Your task to perform on an android device: Go to Reddit.com Image 0: 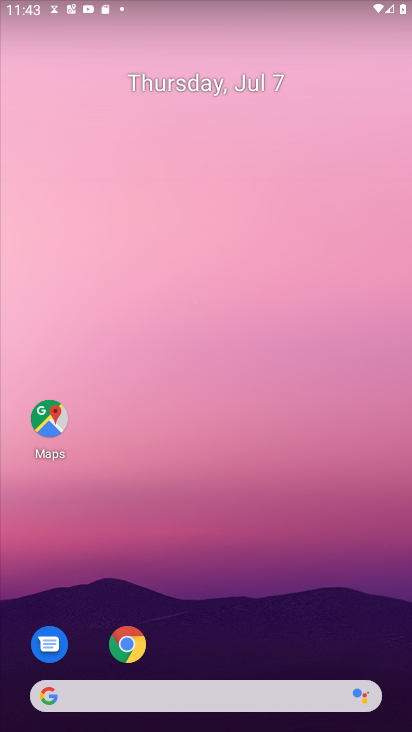
Step 0: click (195, 698)
Your task to perform on an android device: Go to Reddit.com Image 1: 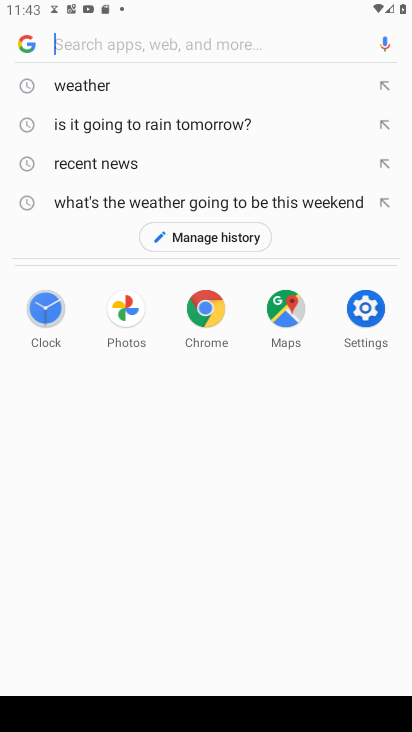
Step 1: type "Reddit.com"
Your task to perform on an android device: Go to Reddit.com Image 2: 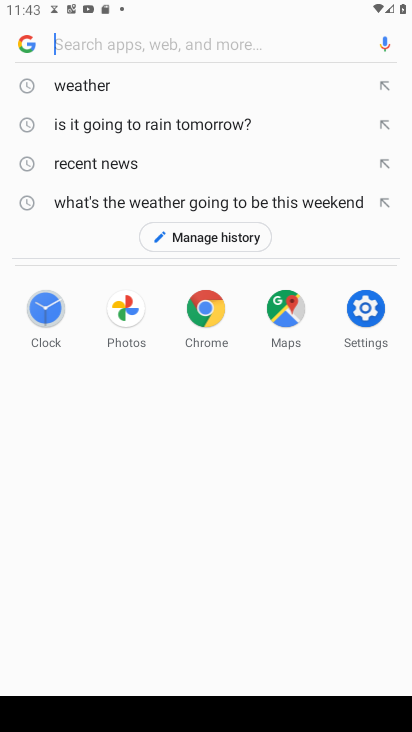
Step 2: click (86, 40)
Your task to perform on an android device: Go to Reddit.com Image 3: 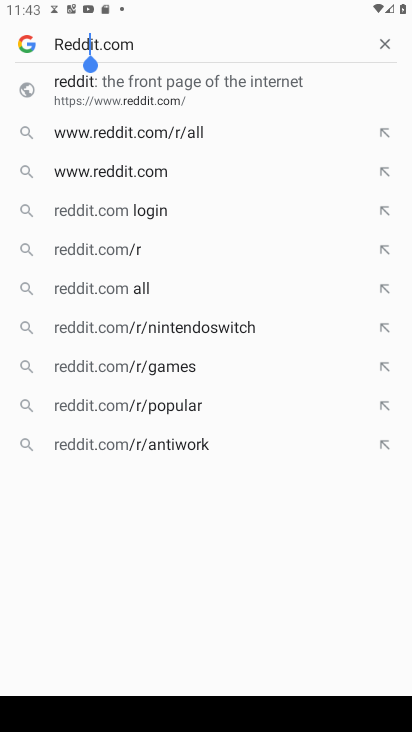
Step 3: press home button
Your task to perform on an android device: Go to Reddit.com Image 4: 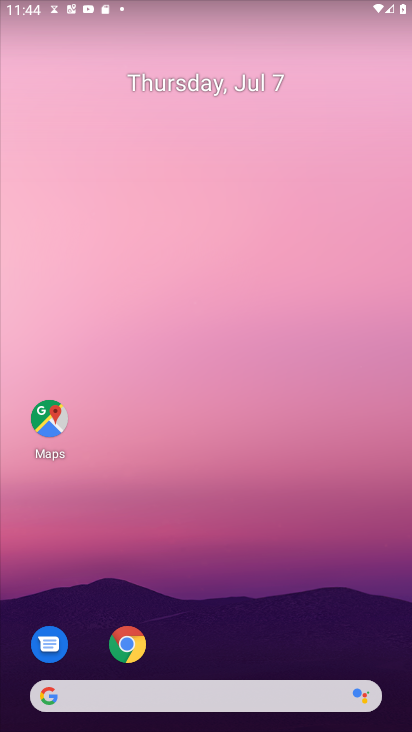
Step 4: click (234, 691)
Your task to perform on an android device: Go to Reddit.com Image 5: 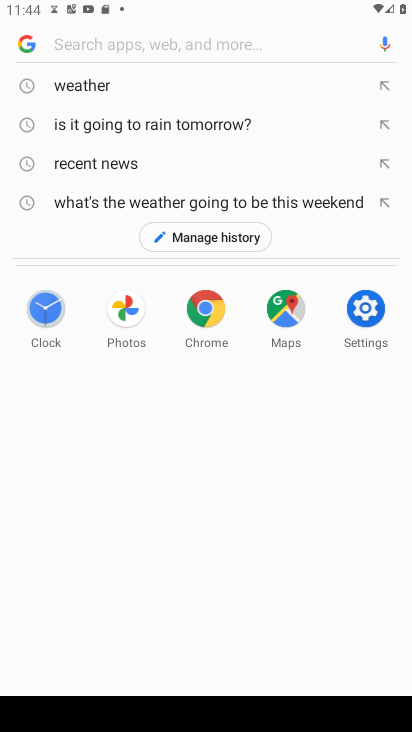
Step 5: type "Reddit.com"
Your task to perform on an android device: Go to Reddit.com Image 6: 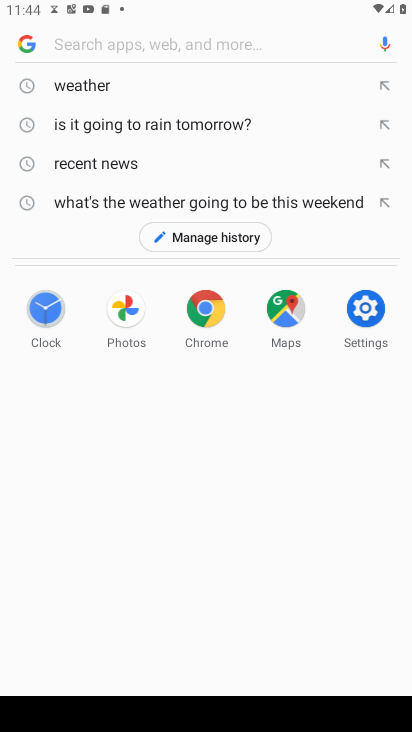
Step 6: click (127, 45)
Your task to perform on an android device: Go to Reddit.com Image 7: 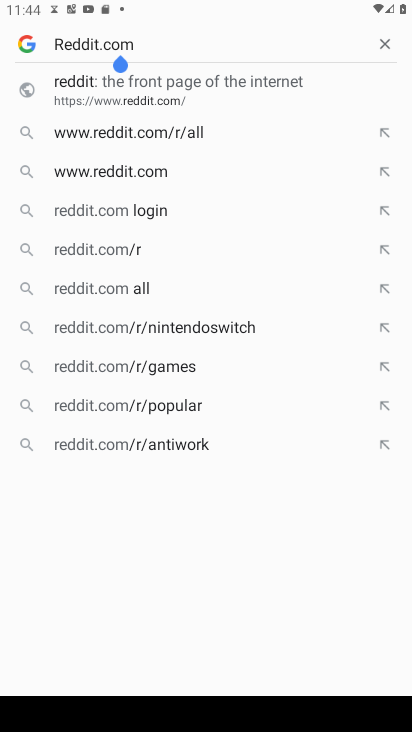
Step 7: click (85, 69)
Your task to perform on an android device: Go to Reddit.com Image 8: 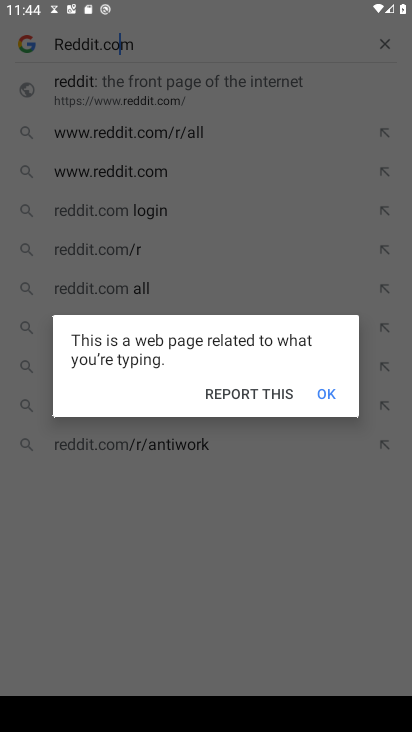
Step 8: click (330, 387)
Your task to perform on an android device: Go to Reddit.com Image 9: 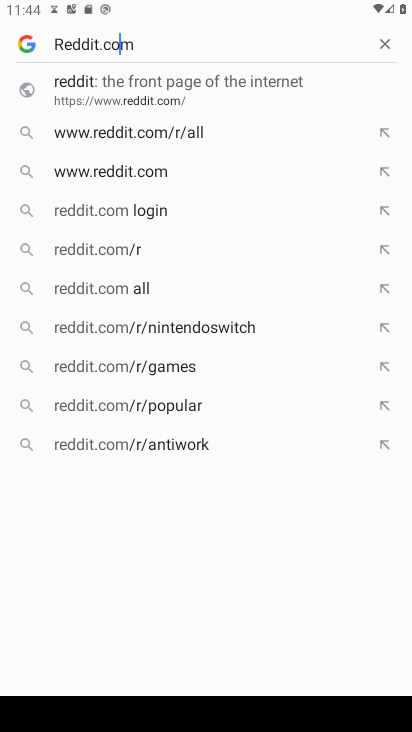
Step 9: click (327, 389)
Your task to perform on an android device: Go to Reddit.com Image 10: 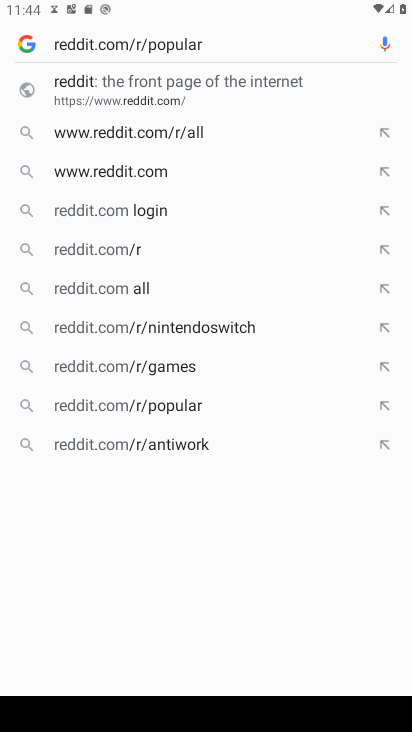
Step 10: click (121, 162)
Your task to perform on an android device: Go to Reddit.com Image 11: 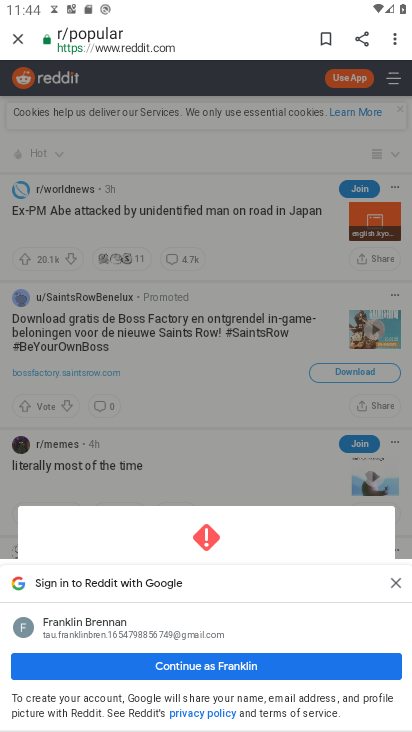
Step 11: task complete